Your task to perform on an android device: turn notification dots on Image 0: 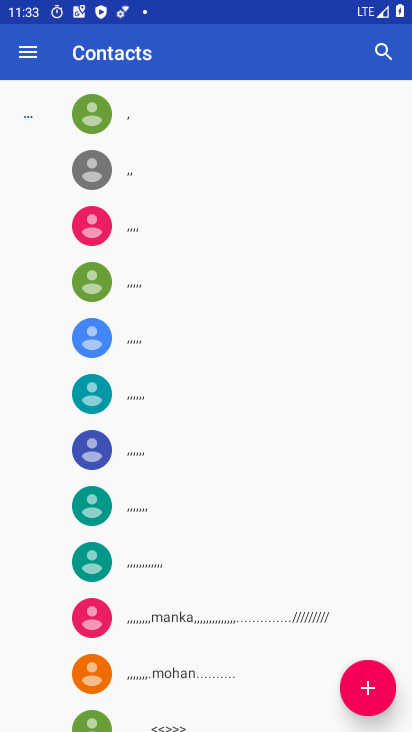
Step 0: press home button
Your task to perform on an android device: turn notification dots on Image 1: 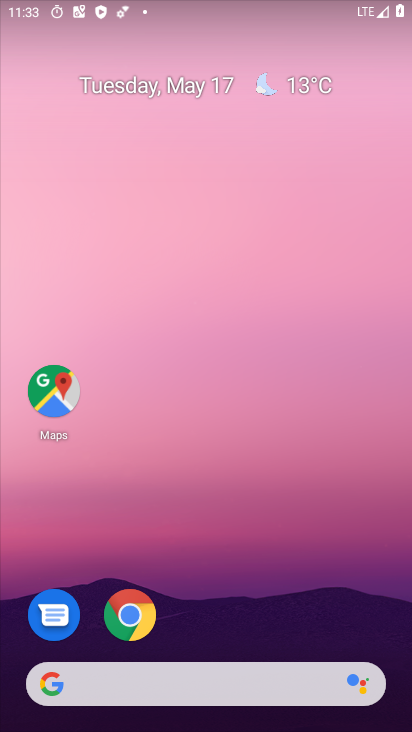
Step 1: drag from (182, 616) to (278, 107)
Your task to perform on an android device: turn notification dots on Image 2: 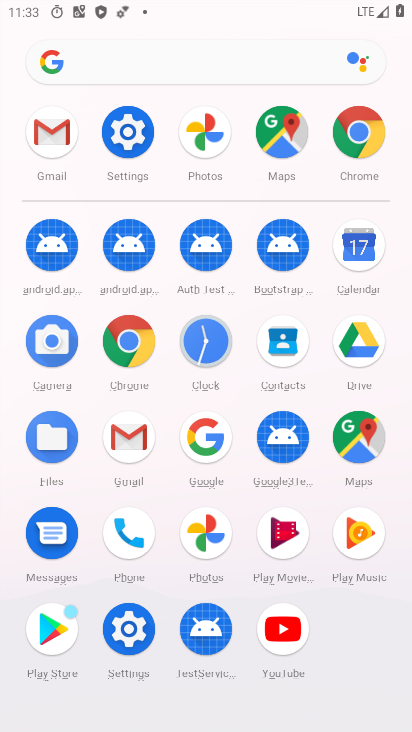
Step 2: click (112, 137)
Your task to perform on an android device: turn notification dots on Image 3: 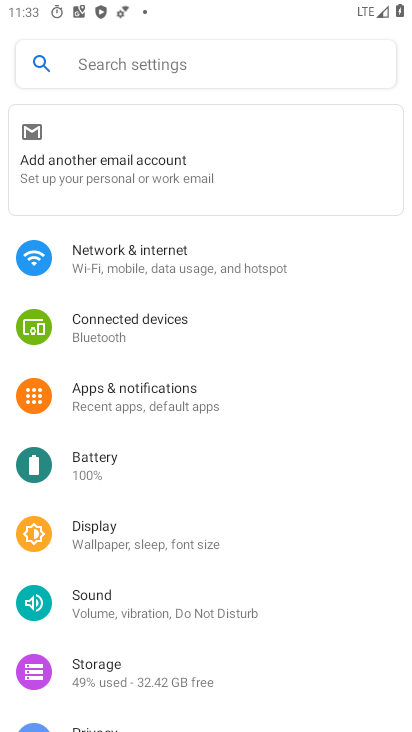
Step 3: drag from (288, 587) to (331, 307)
Your task to perform on an android device: turn notification dots on Image 4: 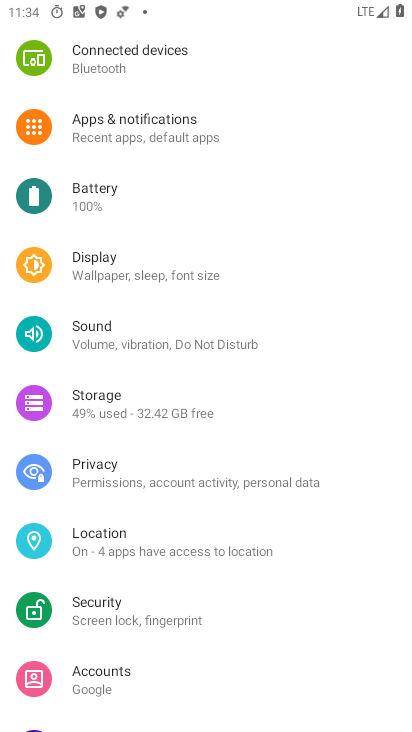
Step 4: click (180, 130)
Your task to perform on an android device: turn notification dots on Image 5: 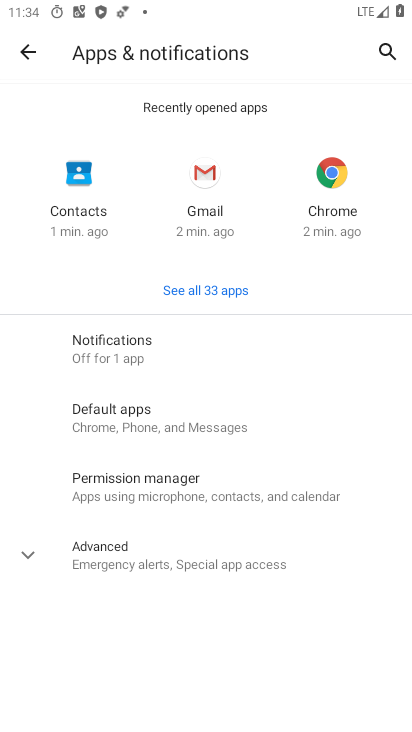
Step 5: click (153, 362)
Your task to perform on an android device: turn notification dots on Image 6: 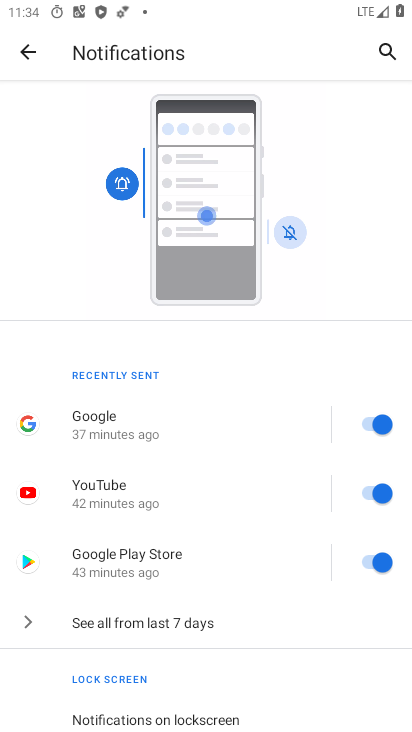
Step 6: drag from (212, 579) to (308, 123)
Your task to perform on an android device: turn notification dots on Image 7: 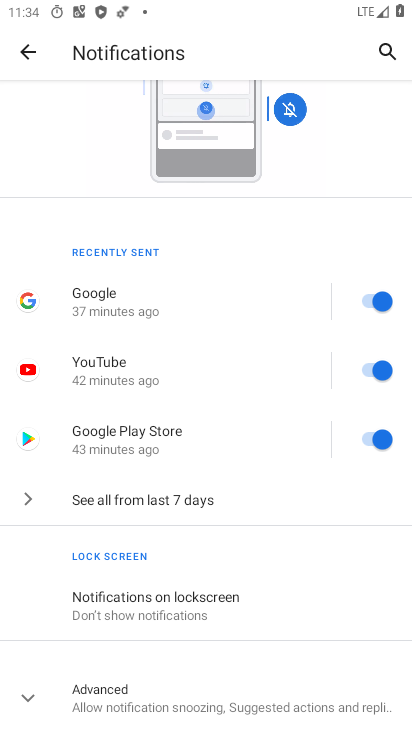
Step 7: click (156, 678)
Your task to perform on an android device: turn notification dots on Image 8: 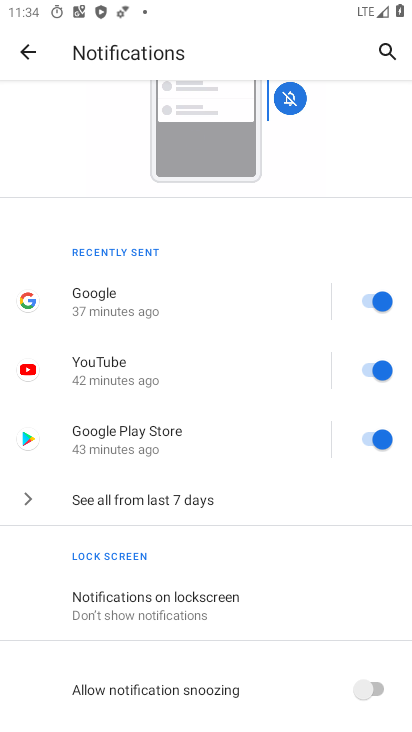
Step 8: task complete